Your task to perform on an android device: Find coffee shops on Maps Image 0: 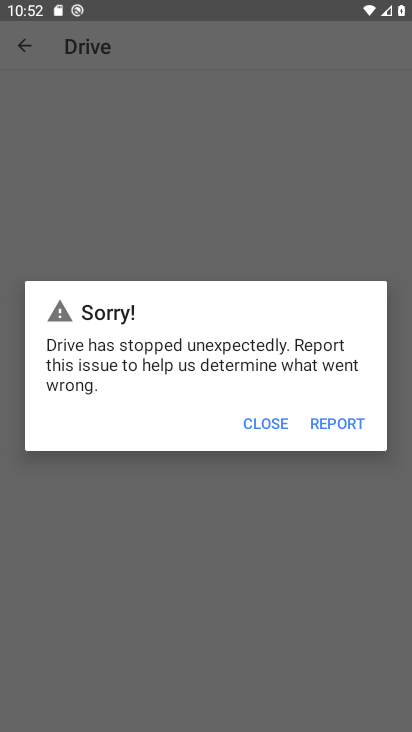
Step 0: click (262, 423)
Your task to perform on an android device: Find coffee shops on Maps Image 1: 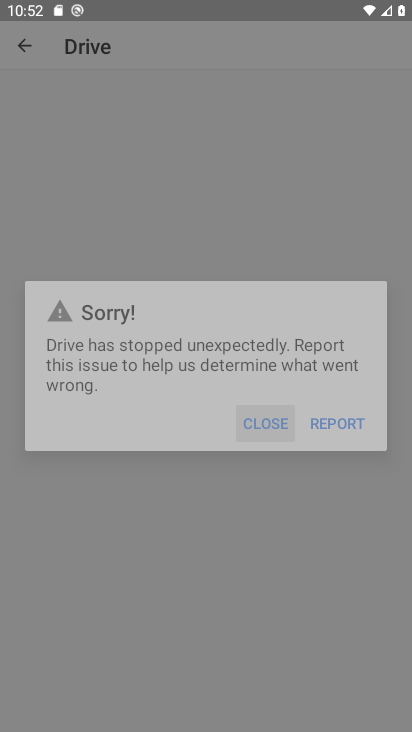
Step 1: click (262, 422)
Your task to perform on an android device: Find coffee shops on Maps Image 2: 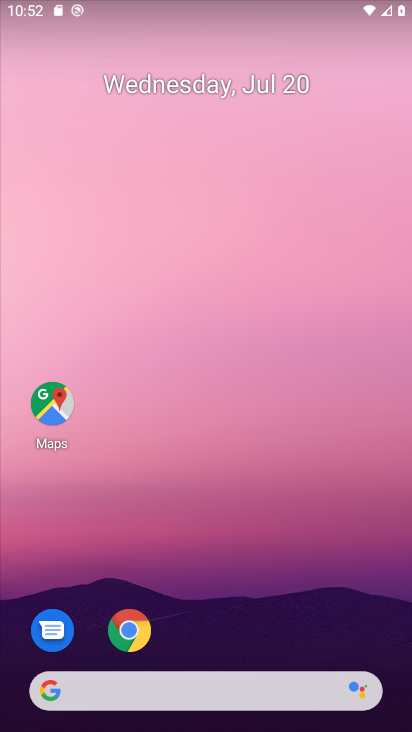
Step 2: drag from (200, 503) to (171, 288)
Your task to perform on an android device: Find coffee shops on Maps Image 3: 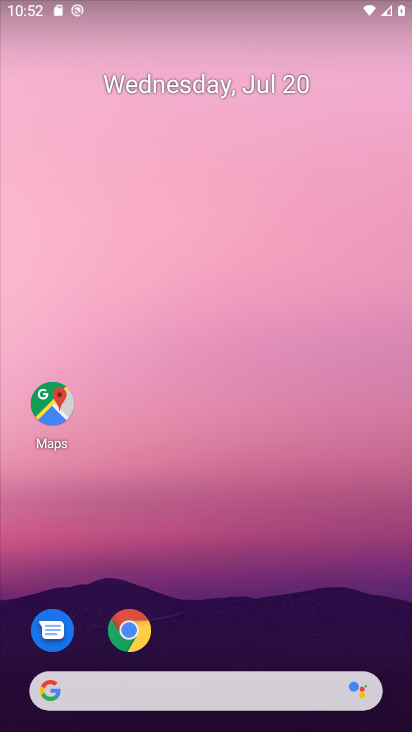
Step 3: drag from (253, 580) to (215, 271)
Your task to perform on an android device: Find coffee shops on Maps Image 4: 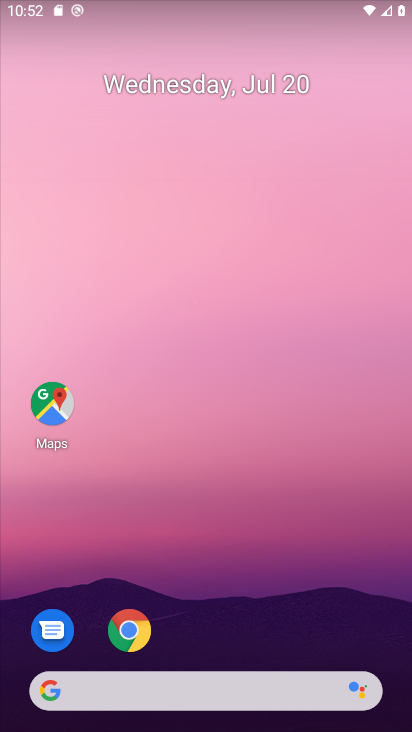
Step 4: drag from (195, 561) to (153, 175)
Your task to perform on an android device: Find coffee shops on Maps Image 5: 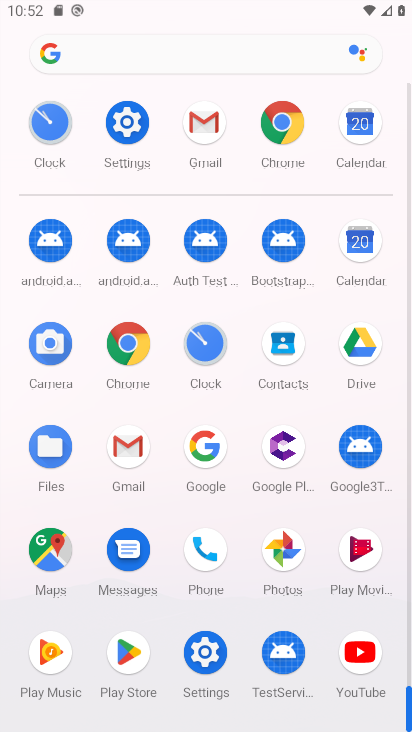
Step 5: click (54, 547)
Your task to perform on an android device: Find coffee shops on Maps Image 6: 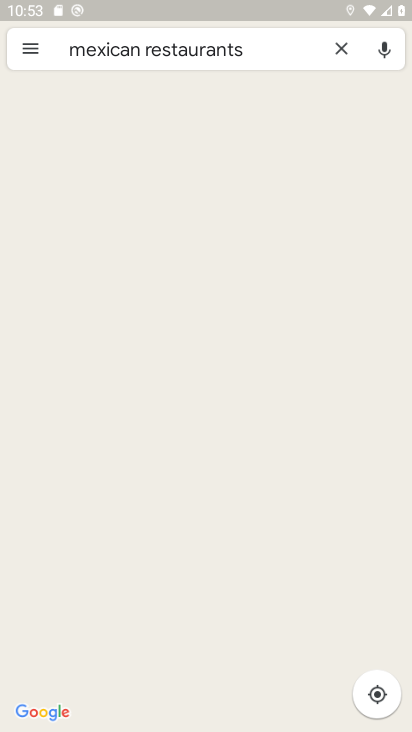
Step 6: task complete